Your task to perform on an android device: set default search engine in the chrome app Image 0: 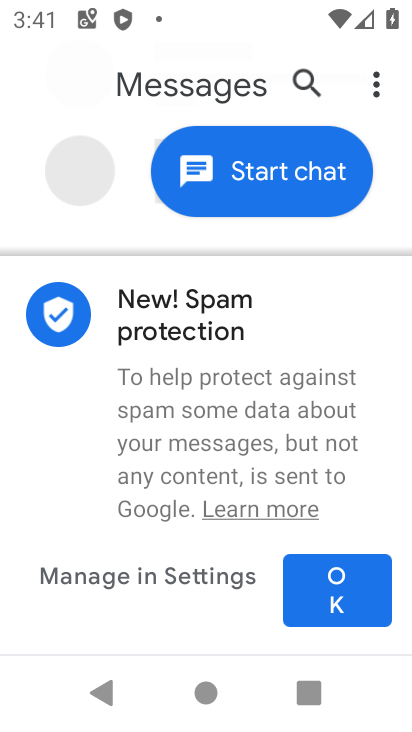
Step 0: press home button
Your task to perform on an android device: set default search engine in the chrome app Image 1: 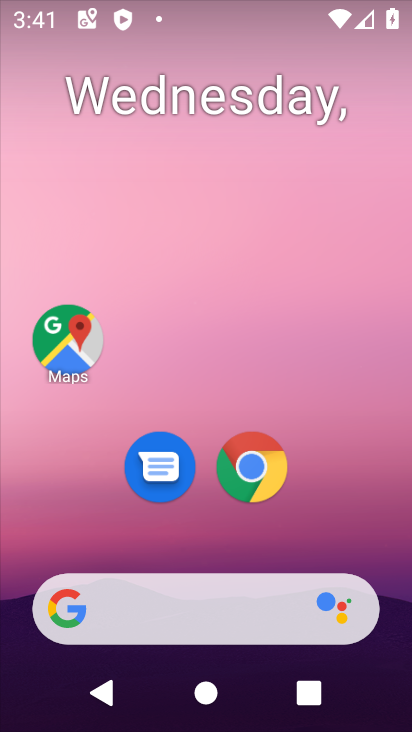
Step 1: click (253, 467)
Your task to perform on an android device: set default search engine in the chrome app Image 2: 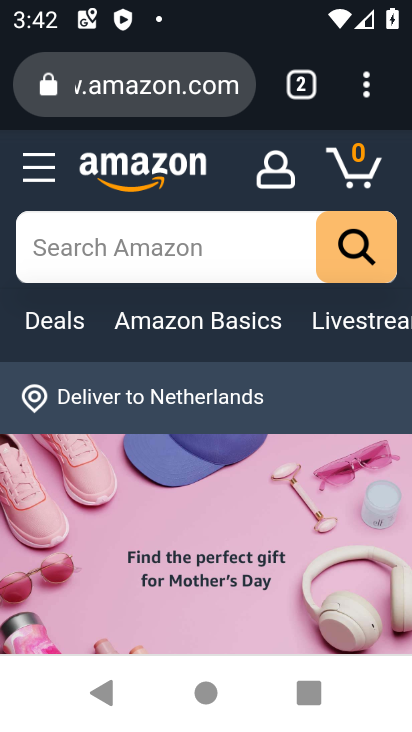
Step 2: click (365, 104)
Your task to perform on an android device: set default search engine in the chrome app Image 3: 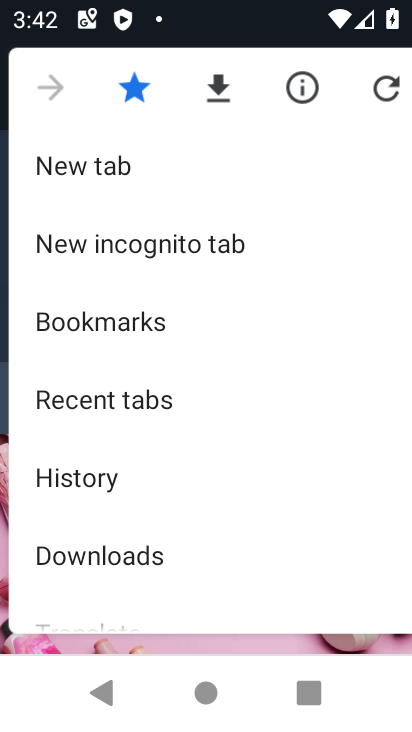
Step 3: drag from (199, 528) to (235, 266)
Your task to perform on an android device: set default search engine in the chrome app Image 4: 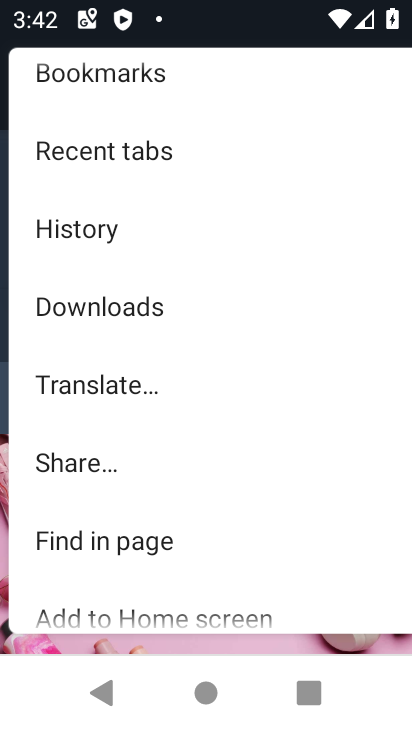
Step 4: drag from (212, 562) to (221, 267)
Your task to perform on an android device: set default search engine in the chrome app Image 5: 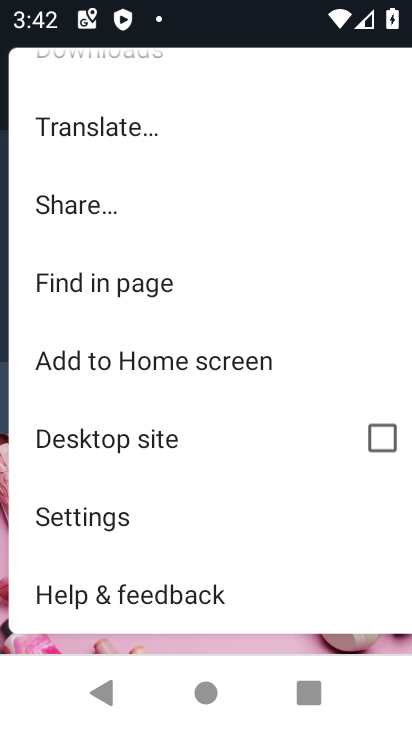
Step 5: click (83, 516)
Your task to perform on an android device: set default search engine in the chrome app Image 6: 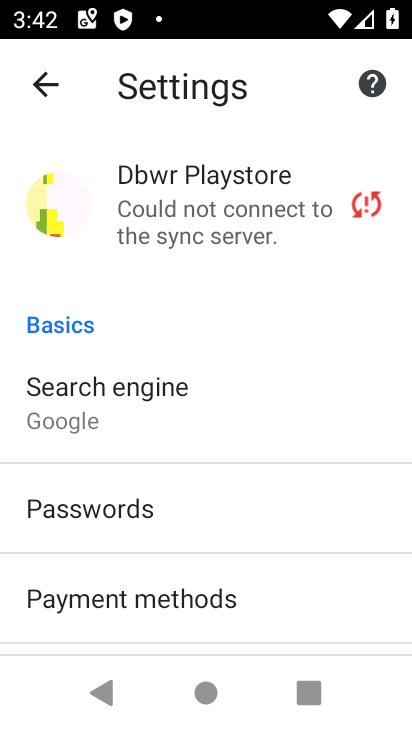
Step 6: click (80, 384)
Your task to perform on an android device: set default search engine in the chrome app Image 7: 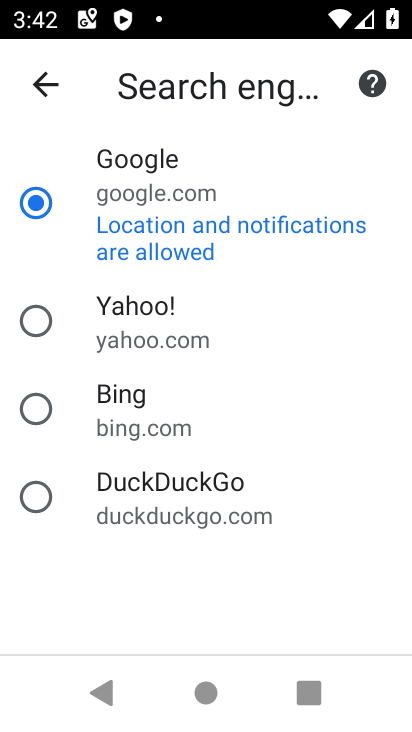
Step 7: click (39, 320)
Your task to perform on an android device: set default search engine in the chrome app Image 8: 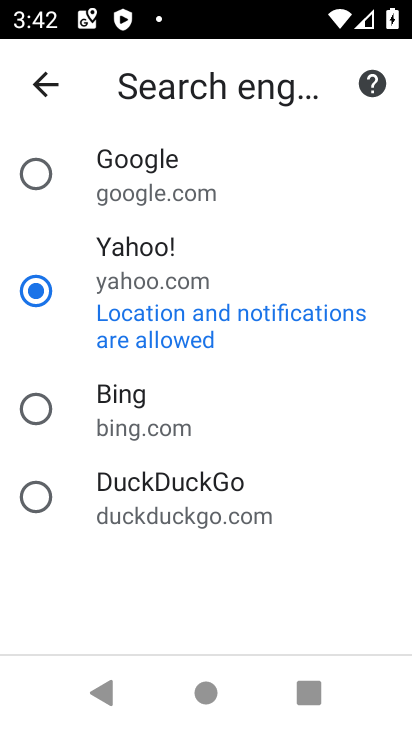
Step 8: task complete